Your task to perform on an android device: Go to Google Image 0: 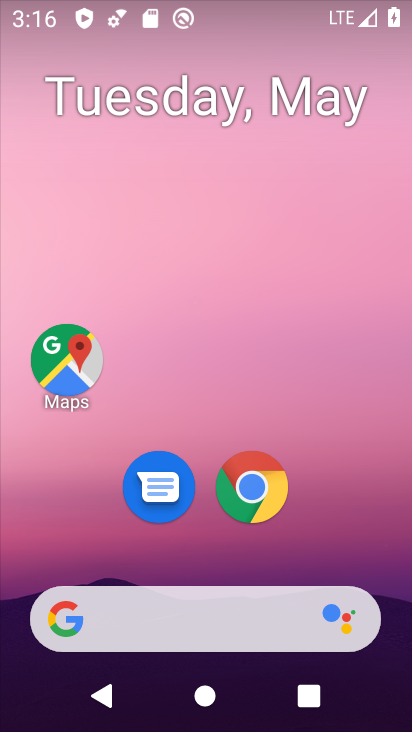
Step 0: drag from (350, 517) to (282, 154)
Your task to perform on an android device: Go to Google Image 1: 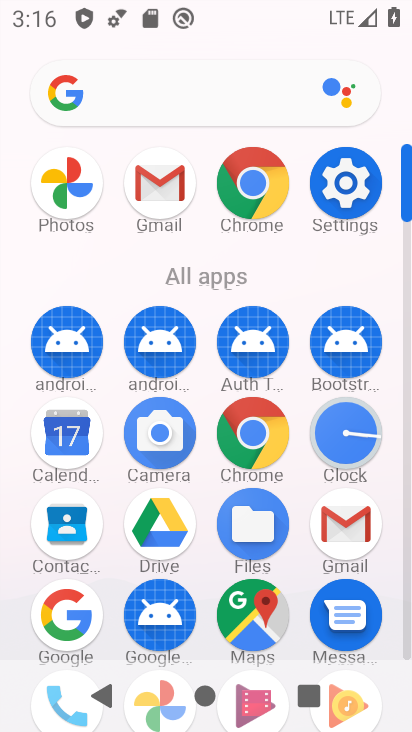
Step 1: click (77, 610)
Your task to perform on an android device: Go to Google Image 2: 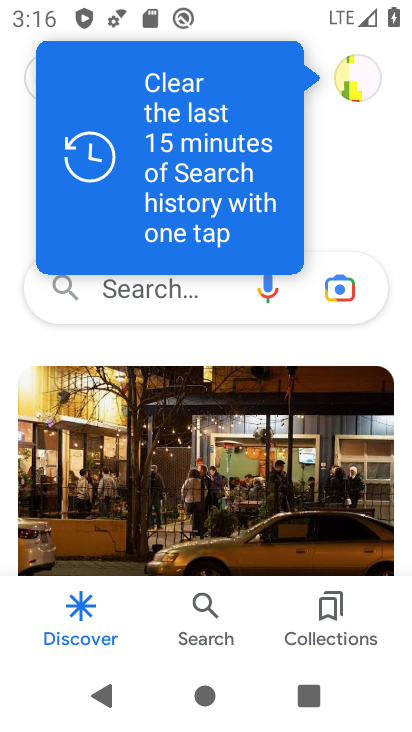
Step 2: task complete